Your task to perform on an android device: Do I have any events today? Image 0: 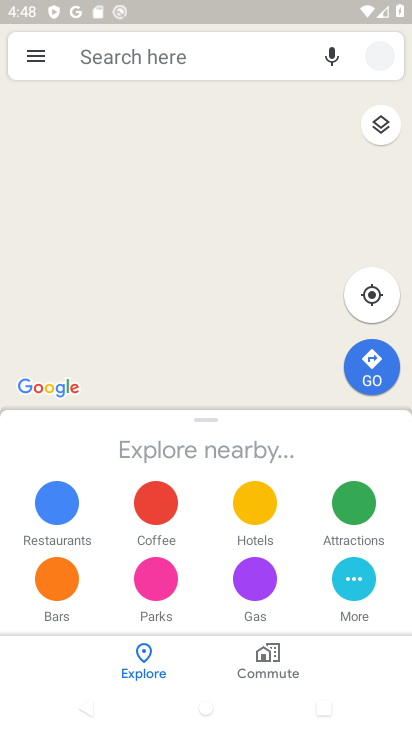
Step 0: press home button
Your task to perform on an android device: Do I have any events today? Image 1: 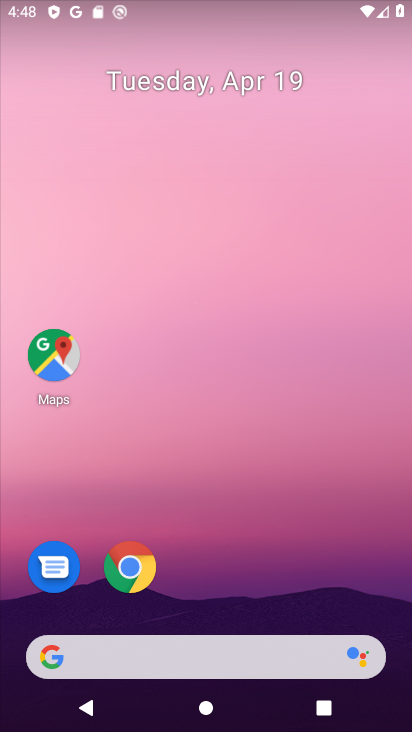
Step 1: press home button
Your task to perform on an android device: Do I have any events today? Image 2: 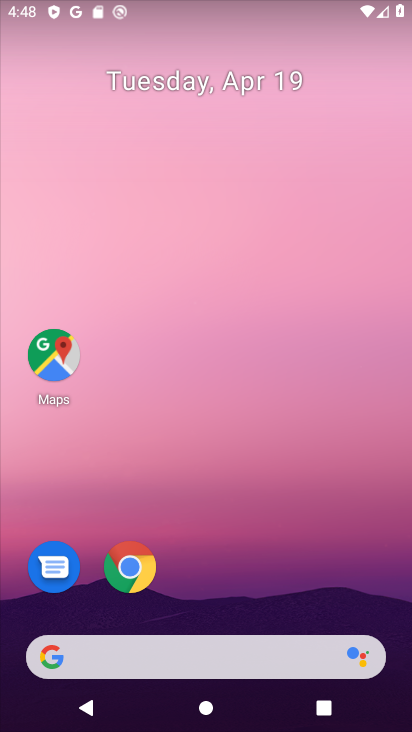
Step 2: drag from (286, 577) to (250, 2)
Your task to perform on an android device: Do I have any events today? Image 3: 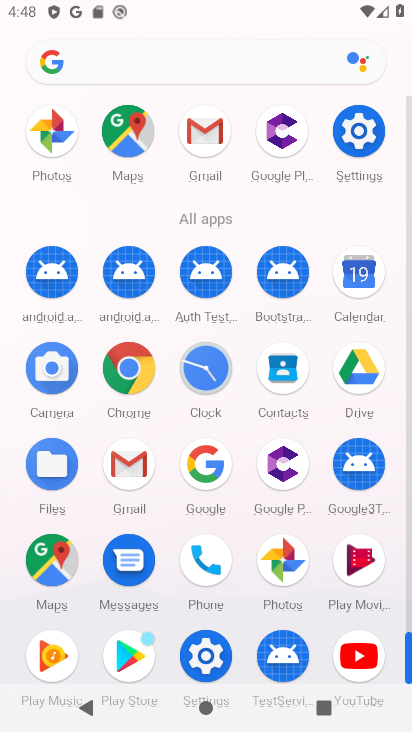
Step 3: drag from (320, 626) to (332, 148)
Your task to perform on an android device: Do I have any events today? Image 4: 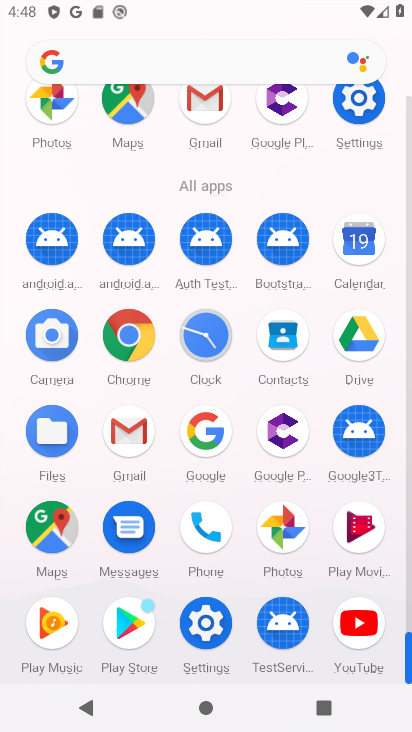
Step 4: drag from (246, 167) to (238, 463)
Your task to perform on an android device: Do I have any events today? Image 5: 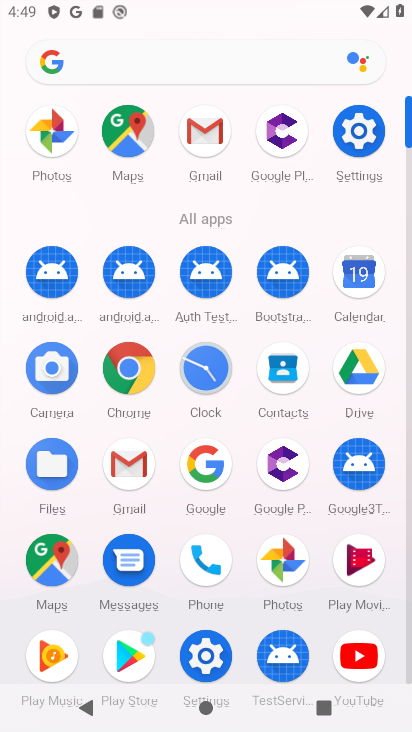
Step 5: click (354, 279)
Your task to perform on an android device: Do I have any events today? Image 6: 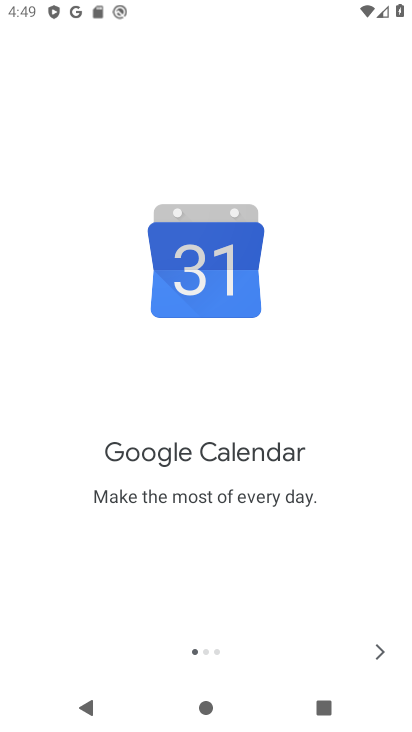
Step 6: click (387, 645)
Your task to perform on an android device: Do I have any events today? Image 7: 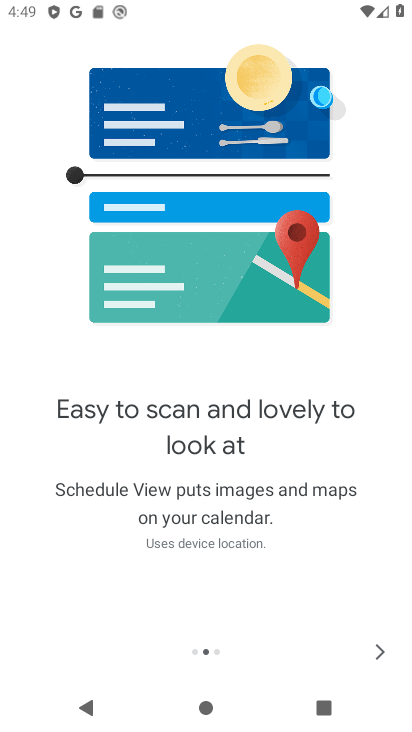
Step 7: click (381, 653)
Your task to perform on an android device: Do I have any events today? Image 8: 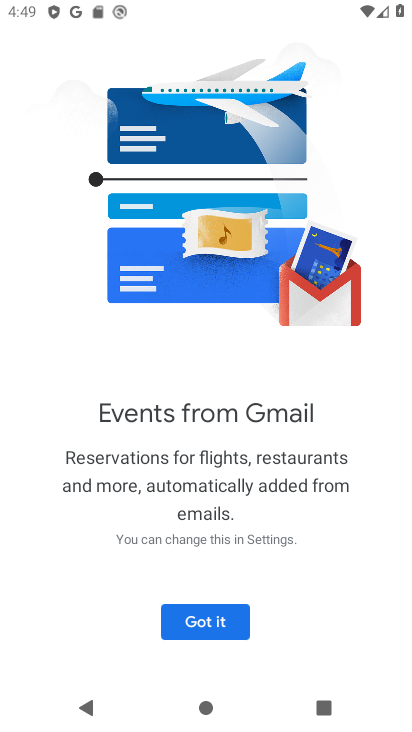
Step 8: click (230, 629)
Your task to perform on an android device: Do I have any events today? Image 9: 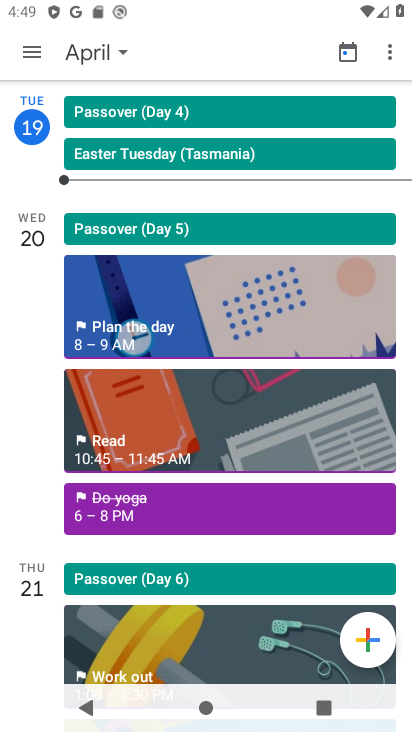
Step 9: click (129, 54)
Your task to perform on an android device: Do I have any events today? Image 10: 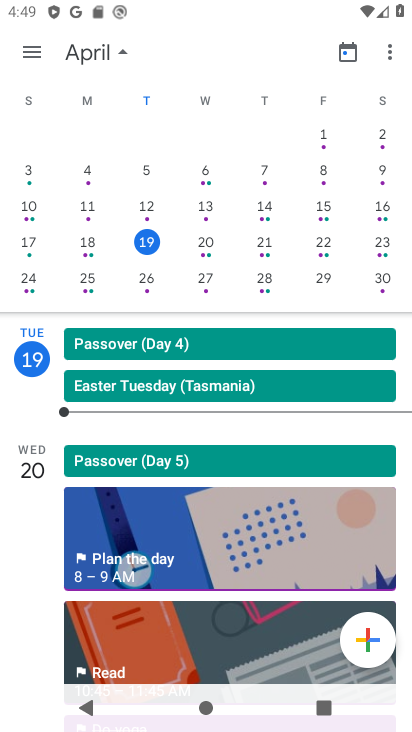
Step 10: task complete